Your task to perform on an android device: Go to settings Image 0: 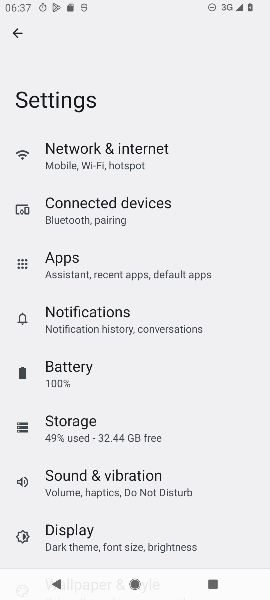
Step 0: press home button
Your task to perform on an android device: Go to settings Image 1: 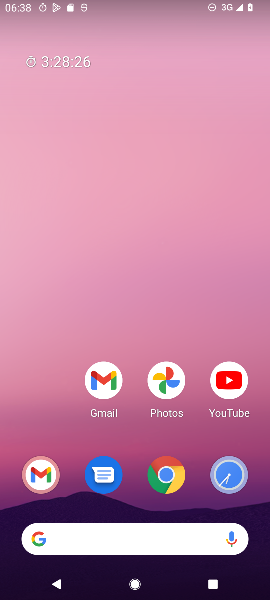
Step 1: drag from (68, 447) to (79, 219)
Your task to perform on an android device: Go to settings Image 2: 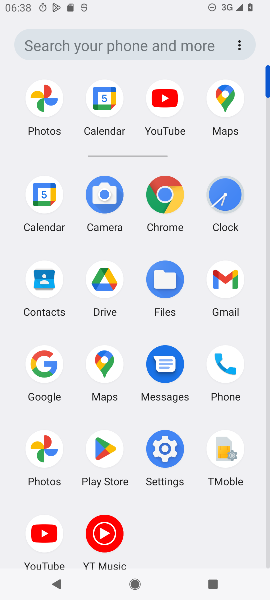
Step 2: click (168, 447)
Your task to perform on an android device: Go to settings Image 3: 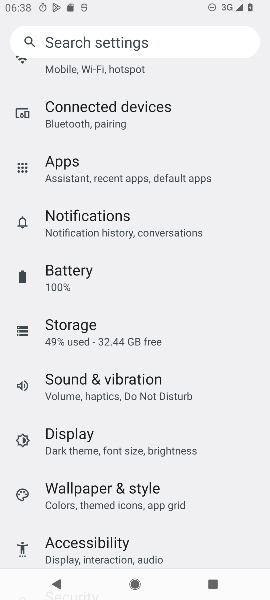
Step 3: task complete